Your task to perform on an android device: Set an alarm for 7pm Image 0: 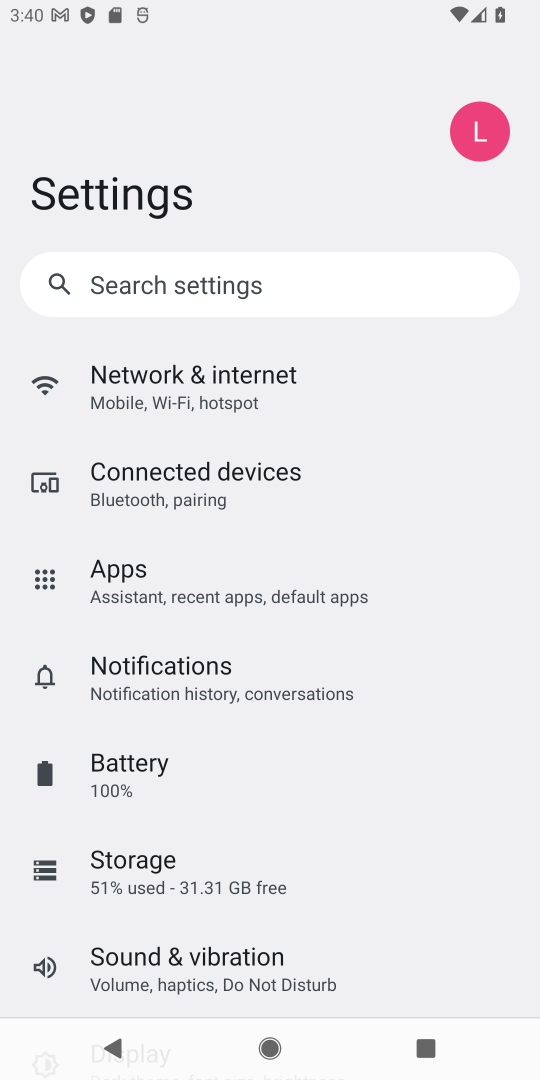
Step 0: press home button
Your task to perform on an android device: Set an alarm for 7pm Image 1: 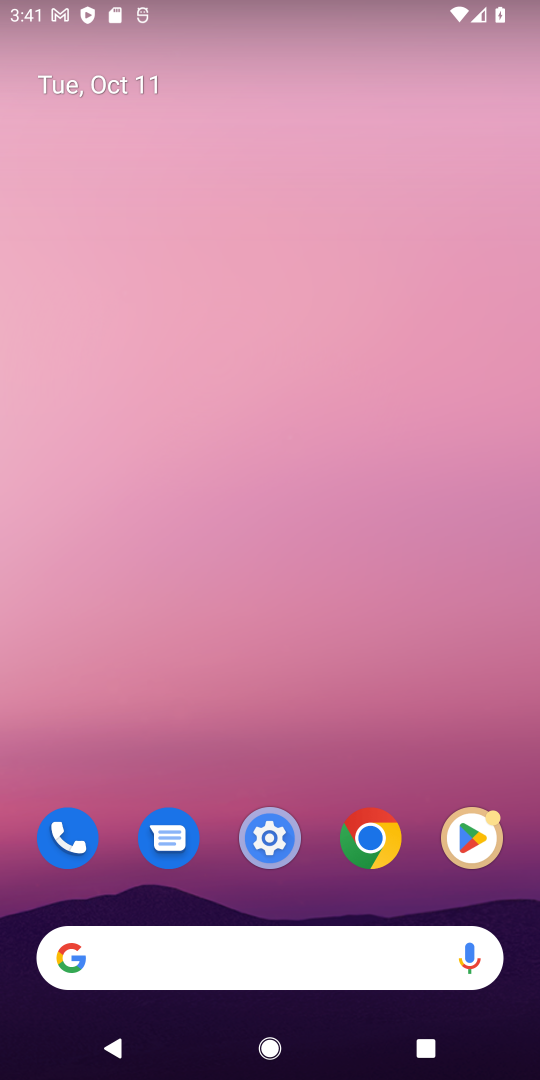
Step 1: drag from (336, 870) to (352, 61)
Your task to perform on an android device: Set an alarm for 7pm Image 2: 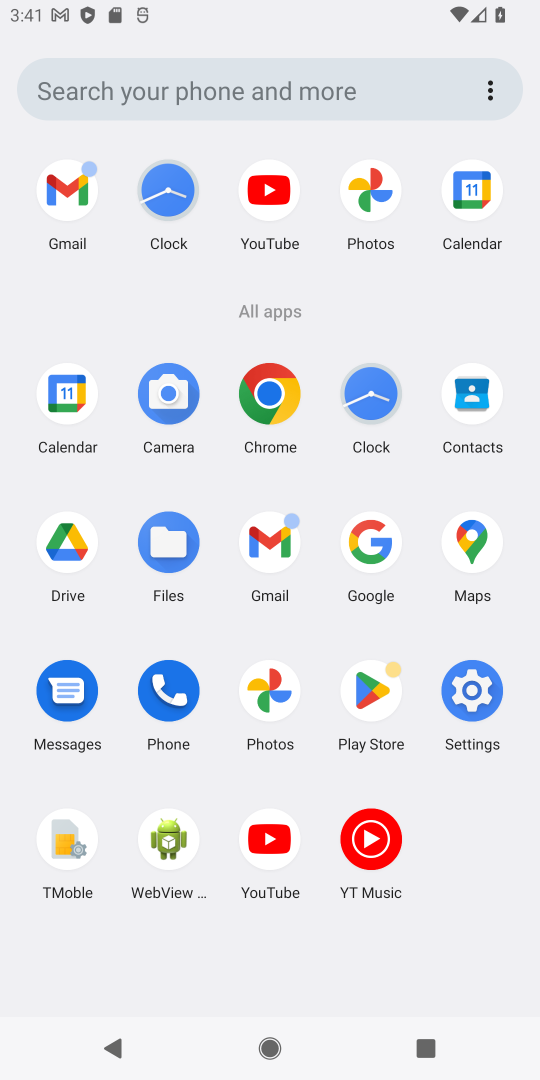
Step 2: click (357, 408)
Your task to perform on an android device: Set an alarm for 7pm Image 3: 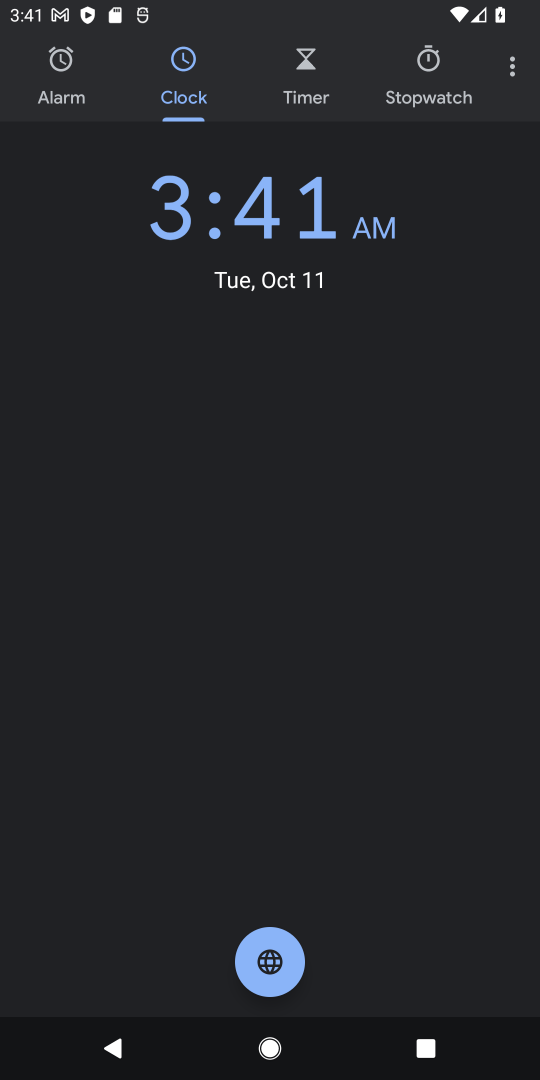
Step 3: click (37, 86)
Your task to perform on an android device: Set an alarm for 7pm Image 4: 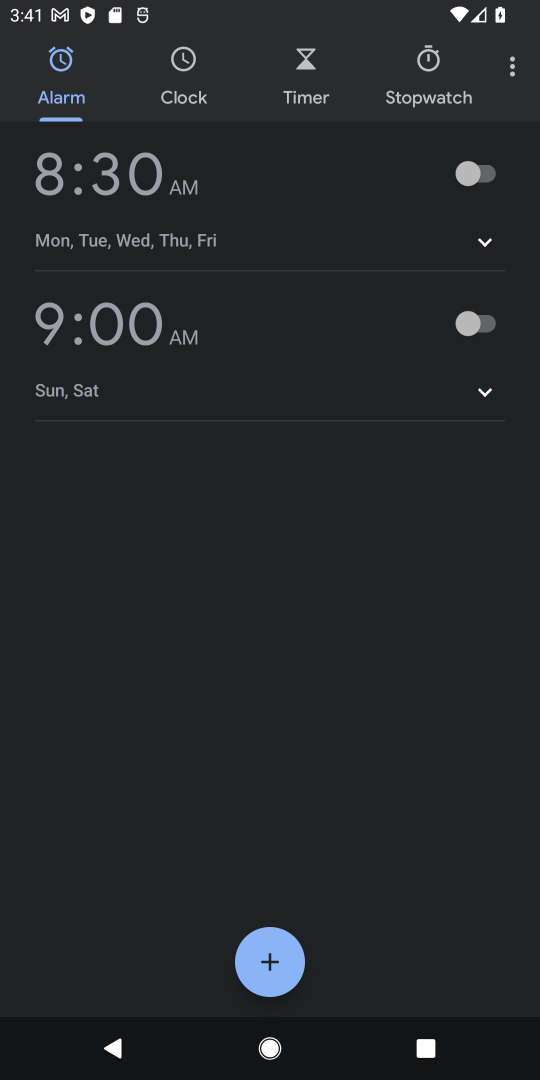
Step 4: click (275, 950)
Your task to perform on an android device: Set an alarm for 7pm Image 5: 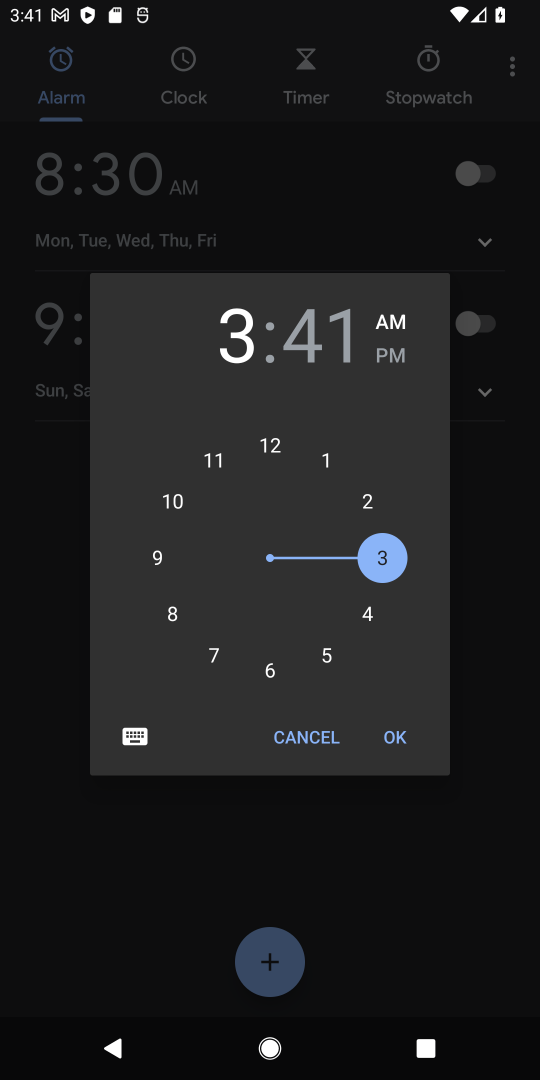
Step 5: click (216, 662)
Your task to perform on an android device: Set an alarm for 7pm Image 6: 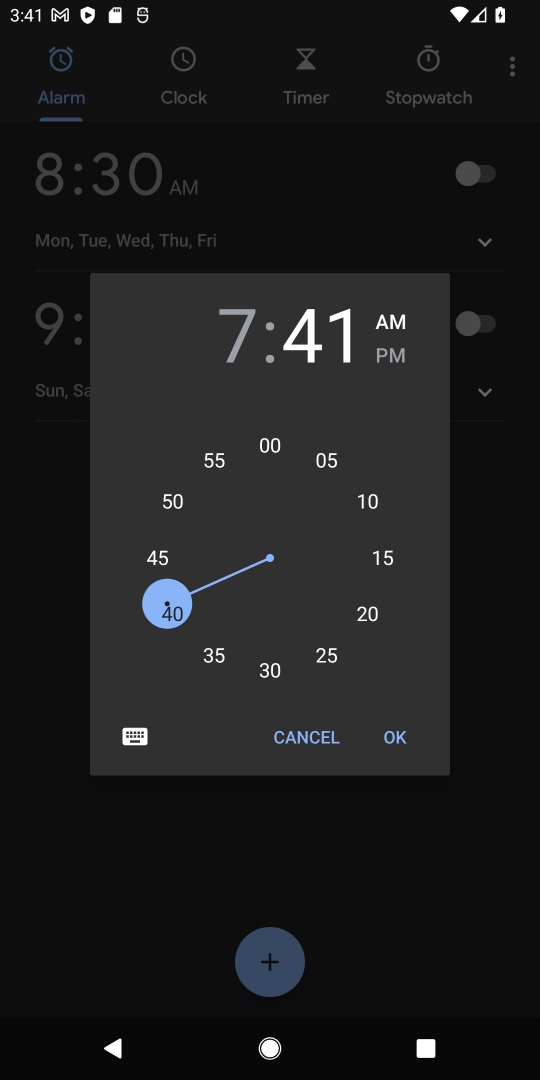
Step 6: click (267, 446)
Your task to perform on an android device: Set an alarm for 7pm Image 7: 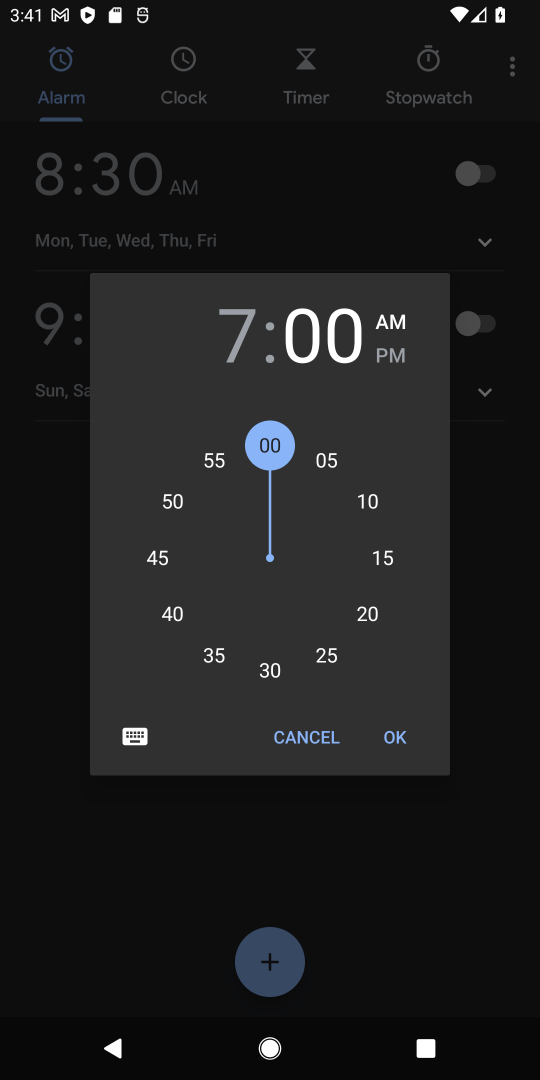
Step 7: click (383, 360)
Your task to perform on an android device: Set an alarm for 7pm Image 8: 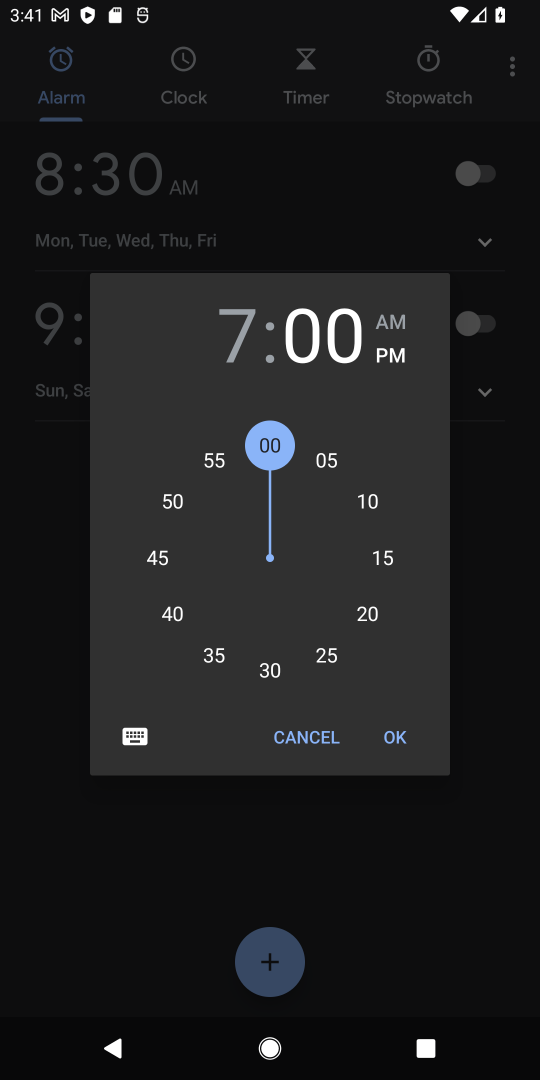
Step 8: click (401, 736)
Your task to perform on an android device: Set an alarm for 7pm Image 9: 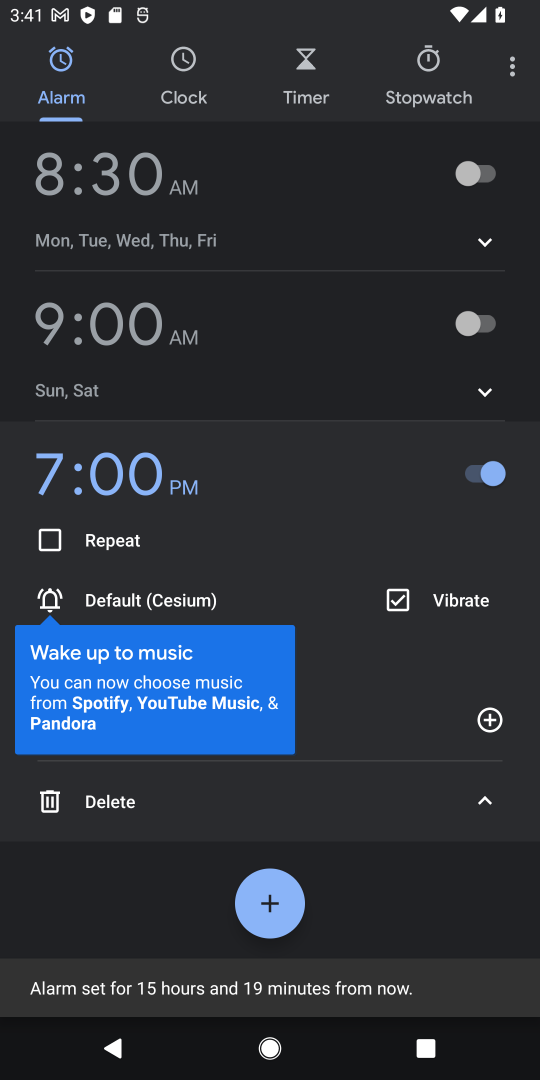
Step 9: task complete